Your task to perform on an android device: turn on location history Image 0: 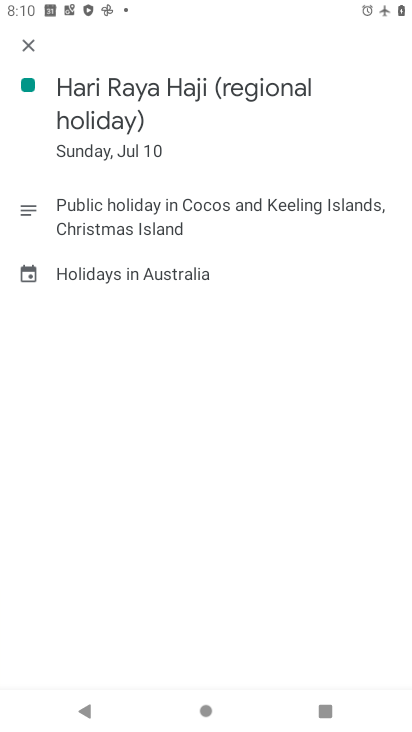
Step 0: press home button
Your task to perform on an android device: turn on location history Image 1: 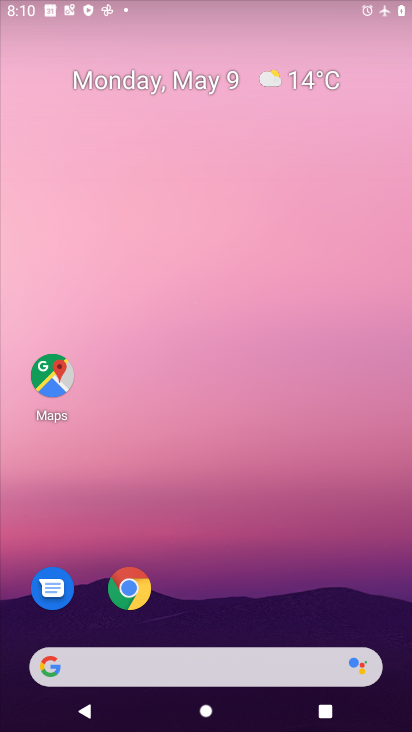
Step 1: drag from (338, 619) to (232, 17)
Your task to perform on an android device: turn on location history Image 2: 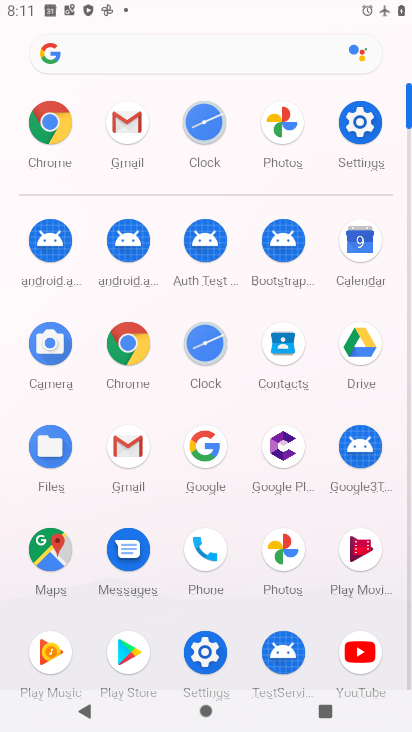
Step 2: click (211, 653)
Your task to perform on an android device: turn on location history Image 3: 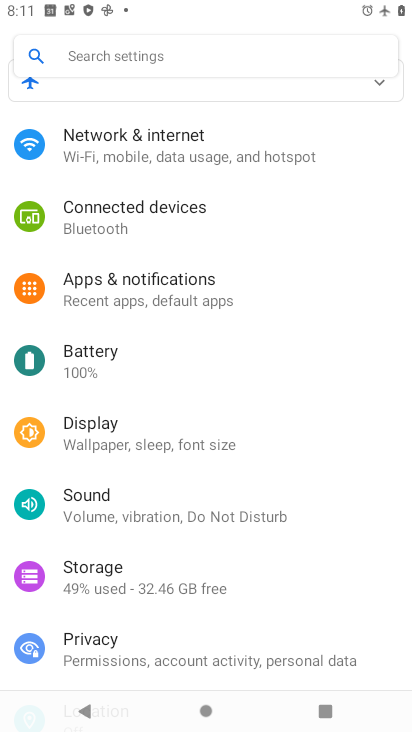
Step 3: drag from (84, 622) to (146, 241)
Your task to perform on an android device: turn on location history Image 4: 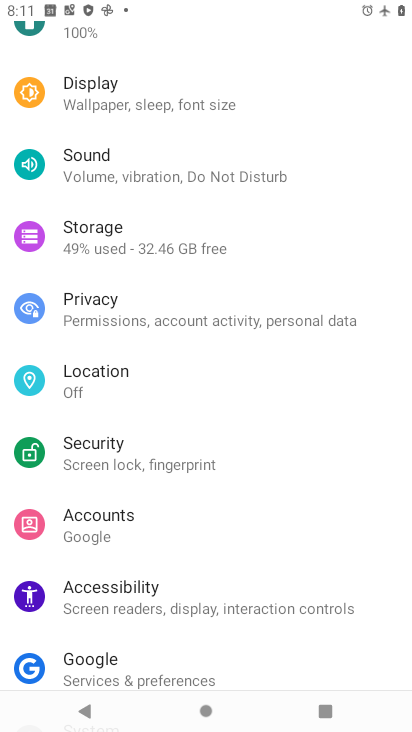
Step 4: click (168, 374)
Your task to perform on an android device: turn on location history Image 5: 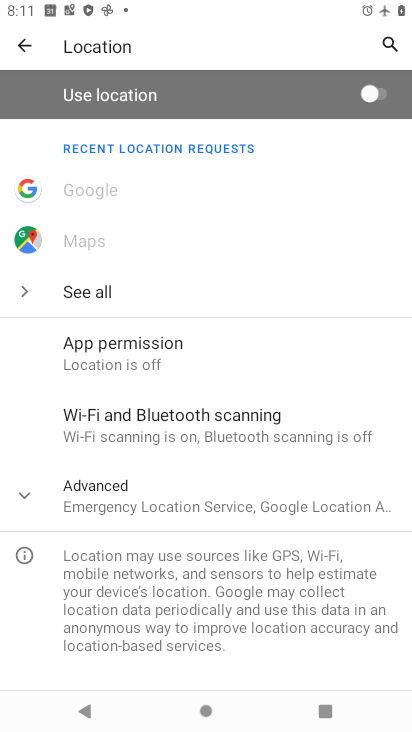
Step 5: click (154, 469)
Your task to perform on an android device: turn on location history Image 6: 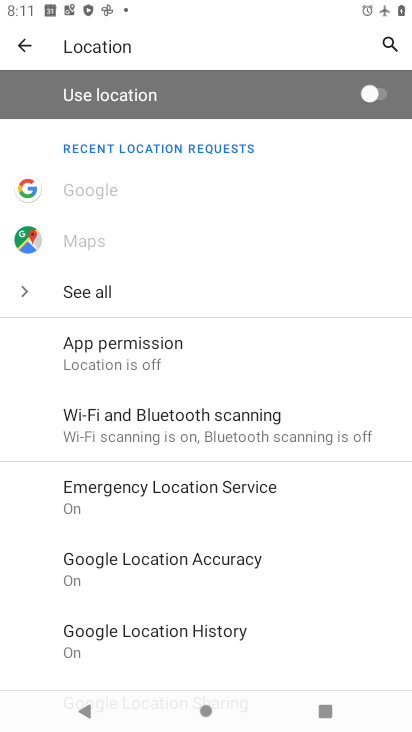
Step 6: click (184, 632)
Your task to perform on an android device: turn on location history Image 7: 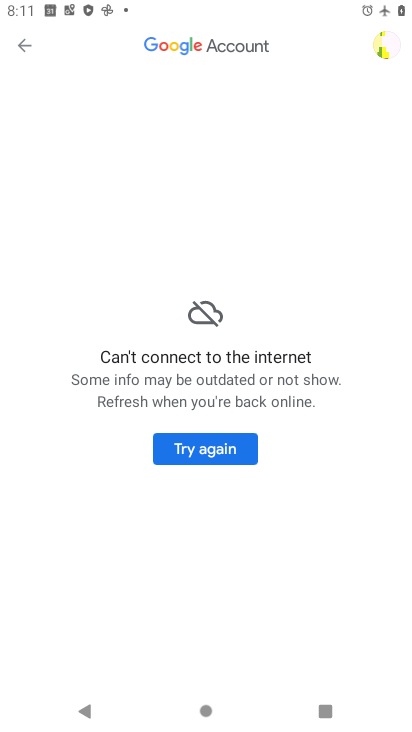
Step 7: click (191, 454)
Your task to perform on an android device: turn on location history Image 8: 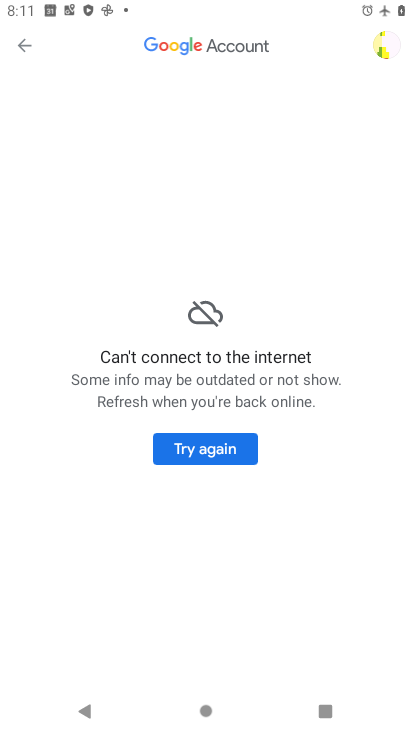
Step 8: task complete